Your task to perform on an android device: Turn on the flashlight Image 0: 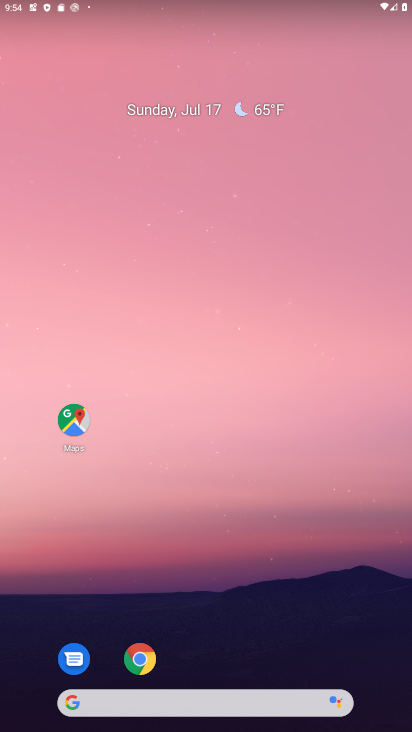
Step 0: drag from (184, 653) to (174, 58)
Your task to perform on an android device: Turn on the flashlight Image 1: 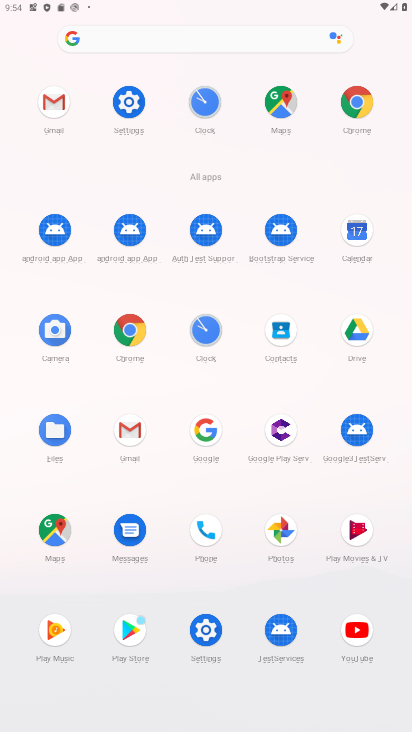
Step 1: click (112, 88)
Your task to perform on an android device: Turn on the flashlight Image 2: 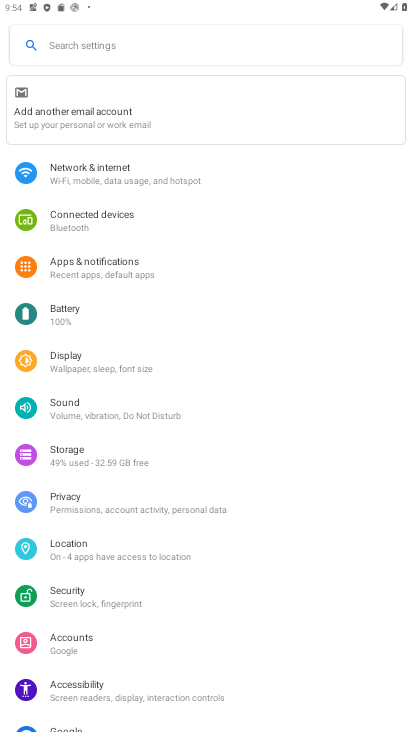
Step 2: task complete